Your task to perform on an android device: clear history in the chrome app Image 0: 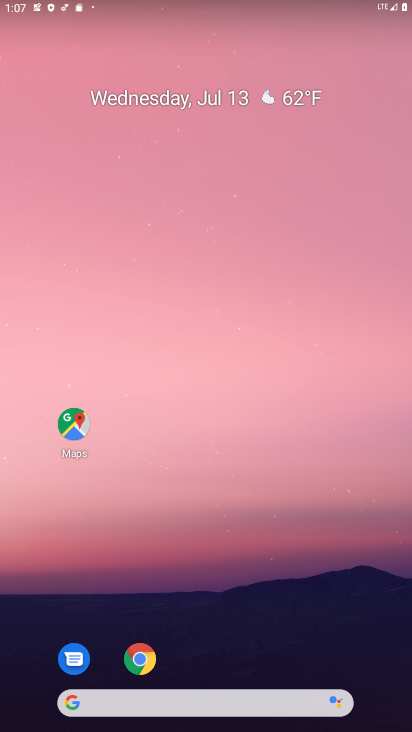
Step 0: drag from (208, 702) to (198, 81)
Your task to perform on an android device: clear history in the chrome app Image 1: 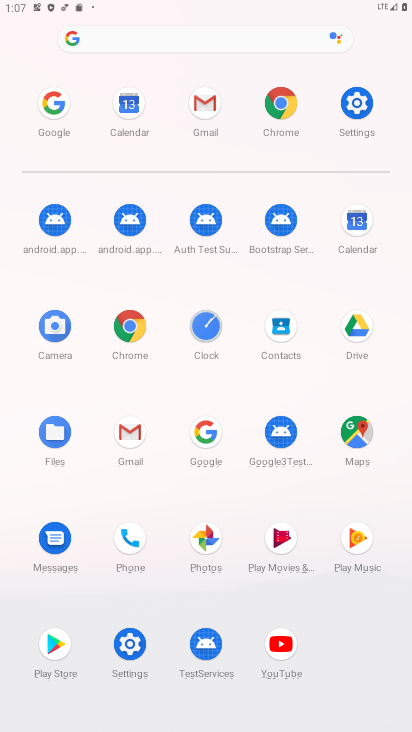
Step 1: click (129, 327)
Your task to perform on an android device: clear history in the chrome app Image 2: 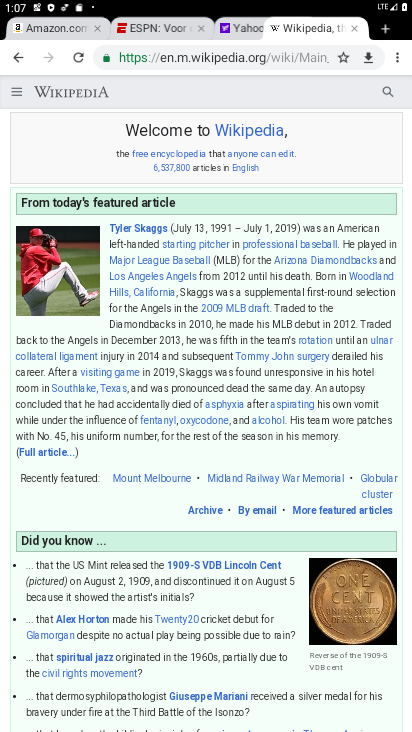
Step 2: click (400, 62)
Your task to perform on an android device: clear history in the chrome app Image 3: 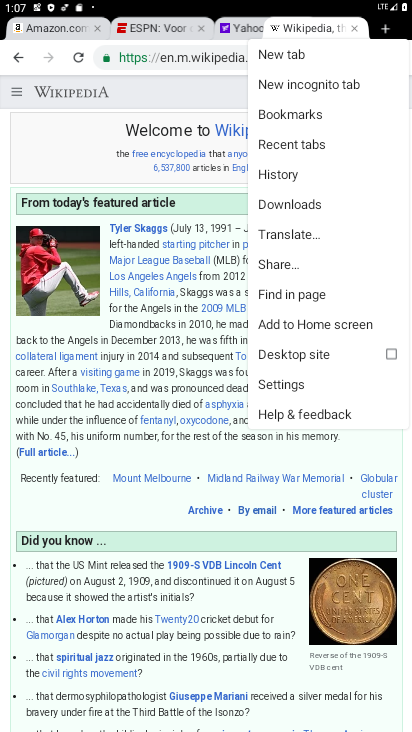
Step 3: click (275, 174)
Your task to perform on an android device: clear history in the chrome app Image 4: 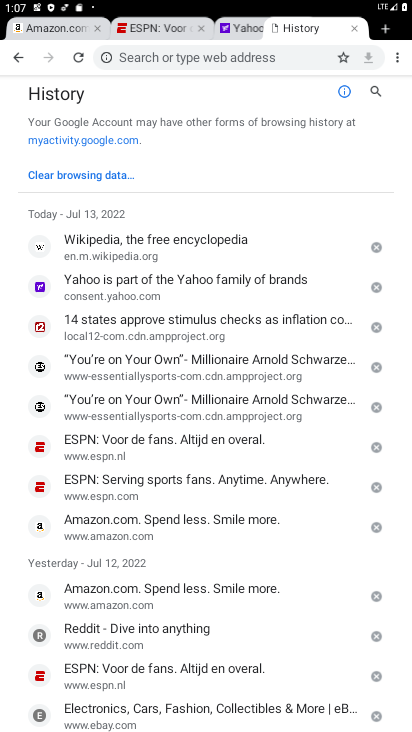
Step 4: click (74, 172)
Your task to perform on an android device: clear history in the chrome app Image 5: 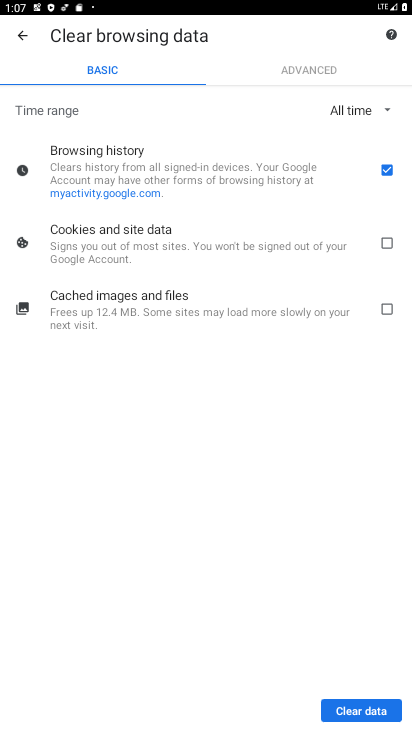
Step 5: click (353, 704)
Your task to perform on an android device: clear history in the chrome app Image 6: 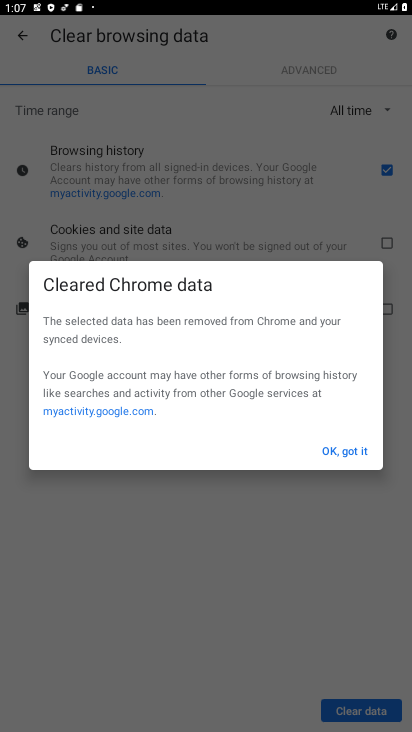
Step 6: click (346, 445)
Your task to perform on an android device: clear history in the chrome app Image 7: 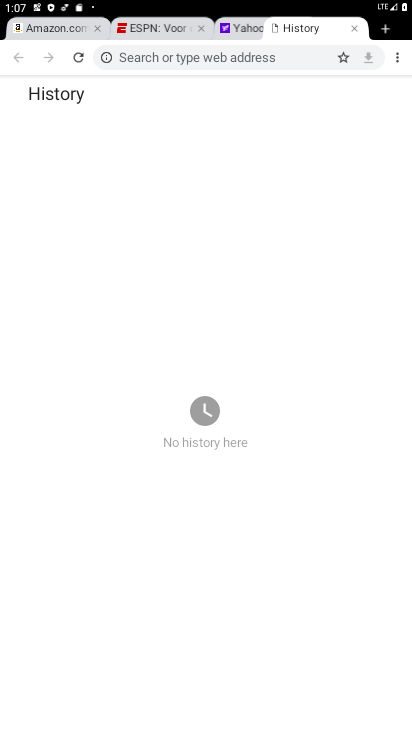
Step 7: task complete